Your task to perform on an android device: Open calendar and show me the fourth week of next month Image 0: 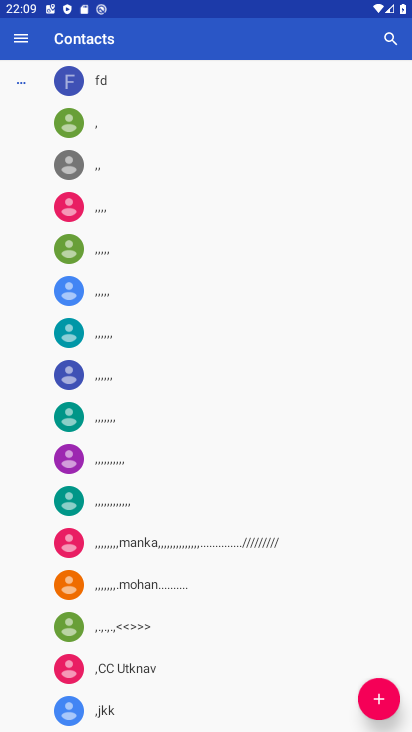
Step 0: press back button
Your task to perform on an android device: Open calendar and show me the fourth week of next month Image 1: 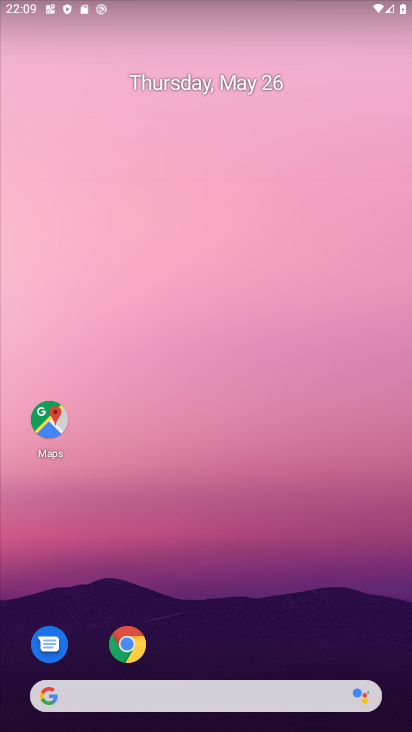
Step 1: drag from (364, 653) to (380, 91)
Your task to perform on an android device: Open calendar and show me the fourth week of next month Image 2: 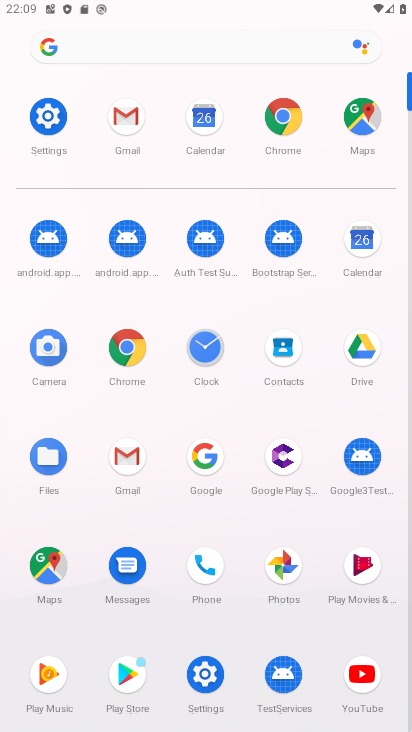
Step 2: click (366, 253)
Your task to perform on an android device: Open calendar and show me the fourth week of next month Image 3: 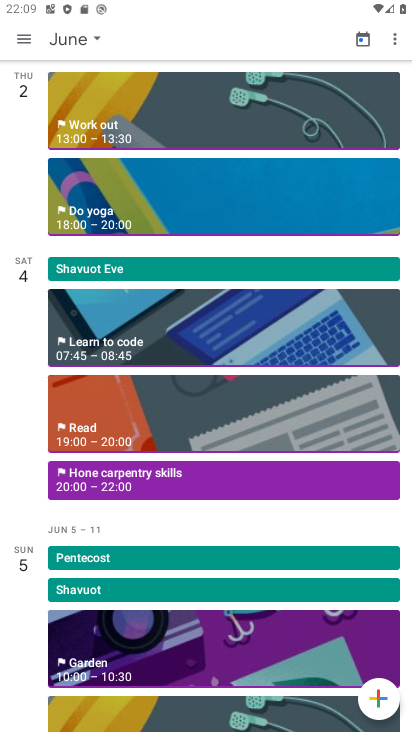
Step 3: click (85, 41)
Your task to perform on an android device: Open calendar and show me the fourth week of next month Image 4: 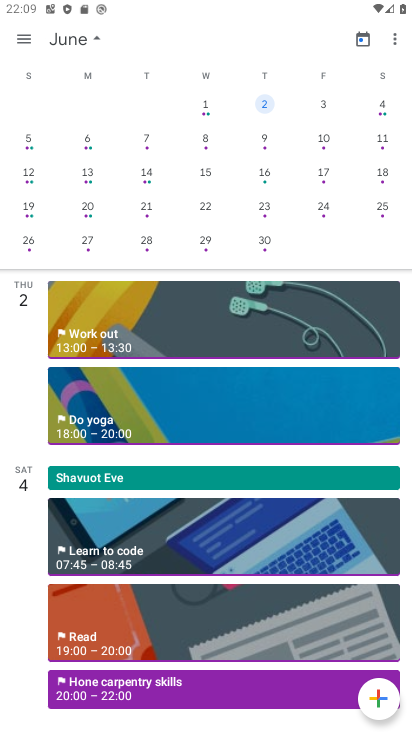
Step 4: click (87, 202)
Your task to perform on an android device: Open calendar and show me the fourth week of next month Image 5: 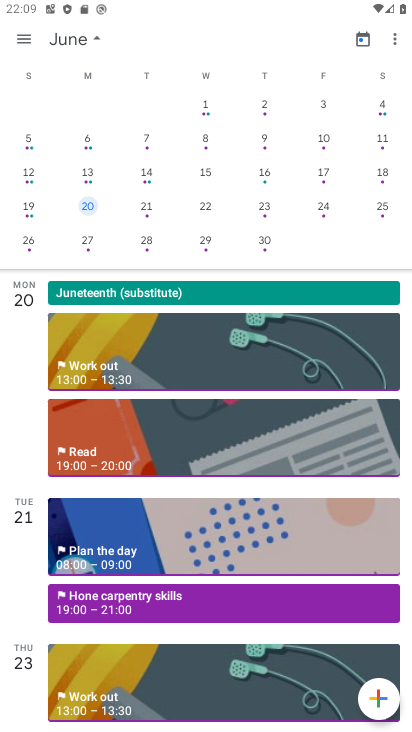
Step 5: task complete